Your task to perform on an android device: Open the stopwatch Image 0: 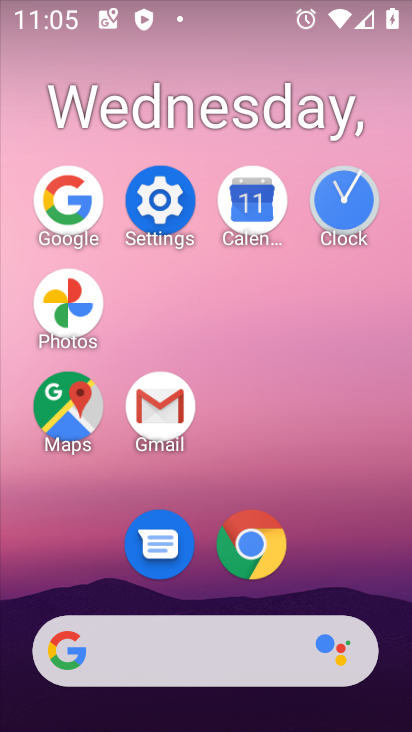
Step 0: click (329, 200)
Your task to perform on an android device: Open the stopwatch Image 1: 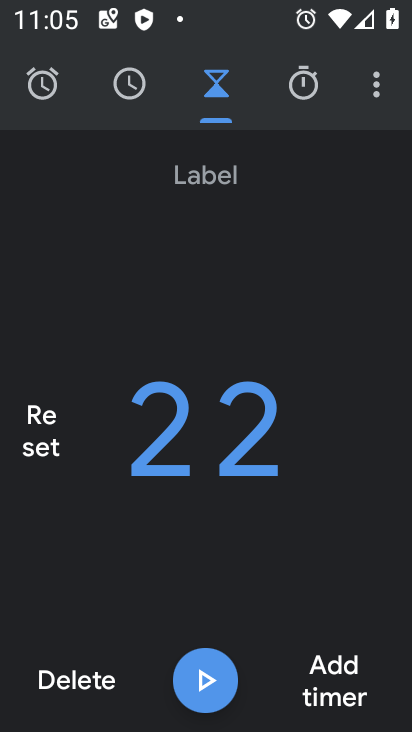
Step 1: click (300, 100)
Your task to perform on an android device: Open the stopwatch Image 2: 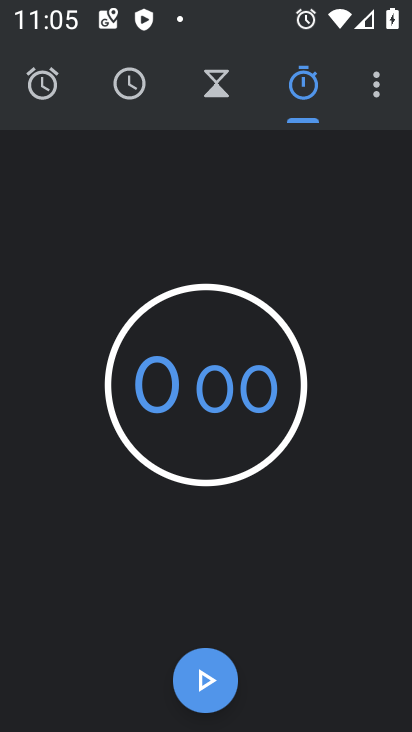
Step 2: task complete